Your task to perform on an android device: What's the weather today? Image 0: 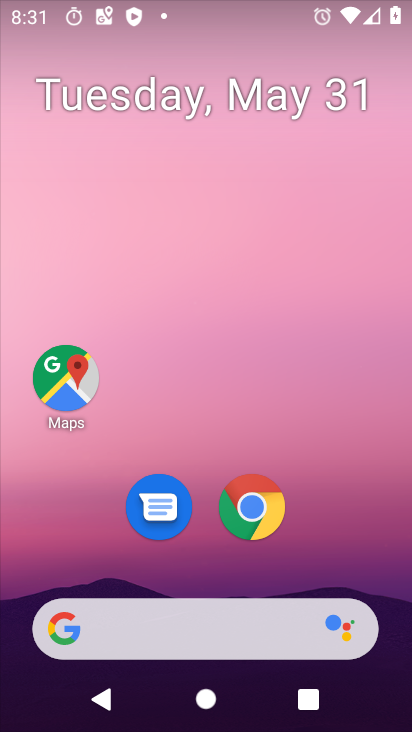
Step 0: click (115, 635)
Your task to perform on an android device: What's the weather today? Image 1: 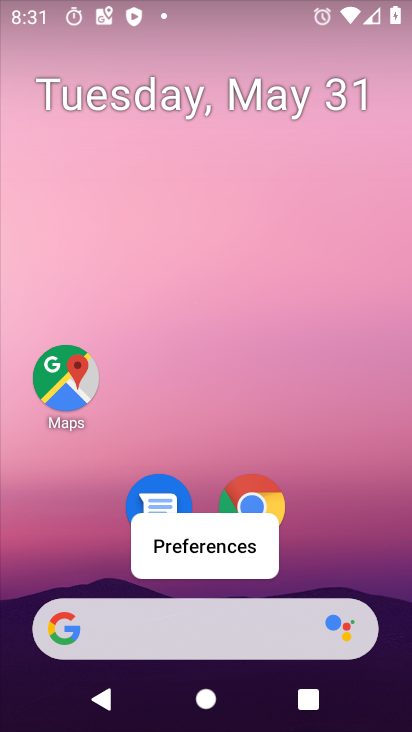
Step 1: click (118, 629)
Your task to perform on an android device: What's the weather today? Image 2: 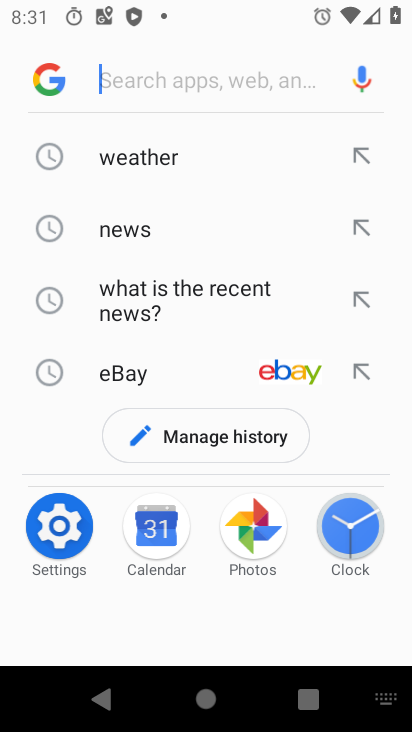
Step 2: click (124, 161)
Your task to perform on an android device: What's the weather today? Image 3: 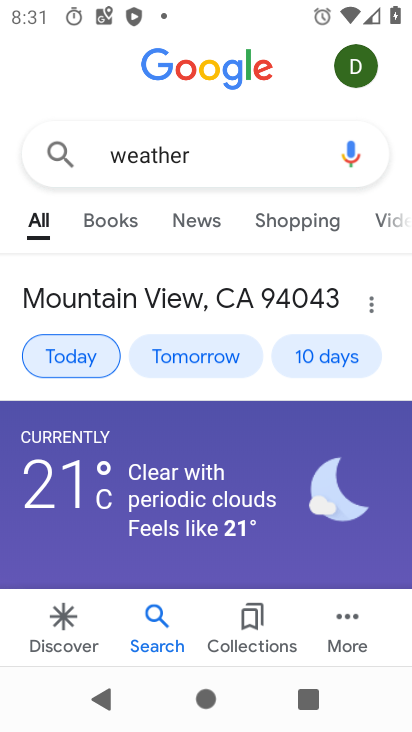
Step 3: task complete